Your task to perform on an android device: Set the phone to "Do not disturb". Image 0: 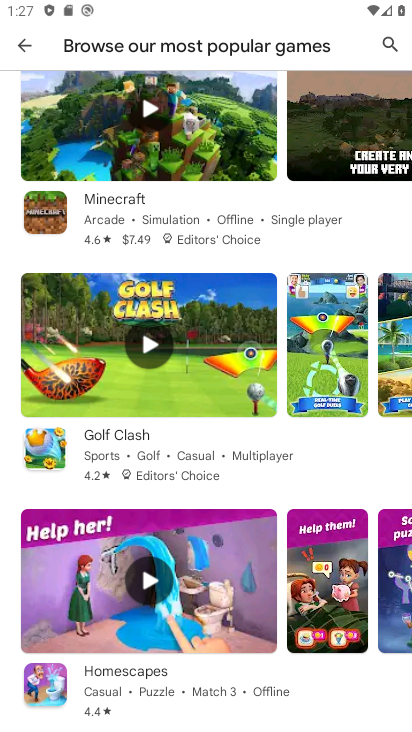
Step 0: press home button
Your task to perform on an android device: Set the phone to "Do not disturb". Image 1: 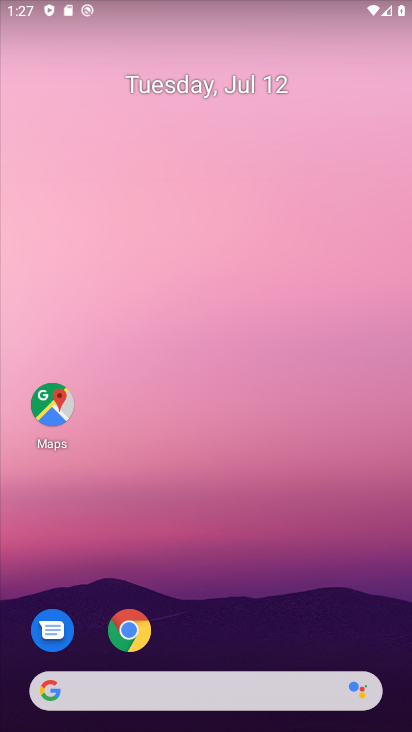
Step 1: drag from (315, 628) to (285, 238)
Your task to perform on an android device: Set the phone to "Do not disturb". Image 2: 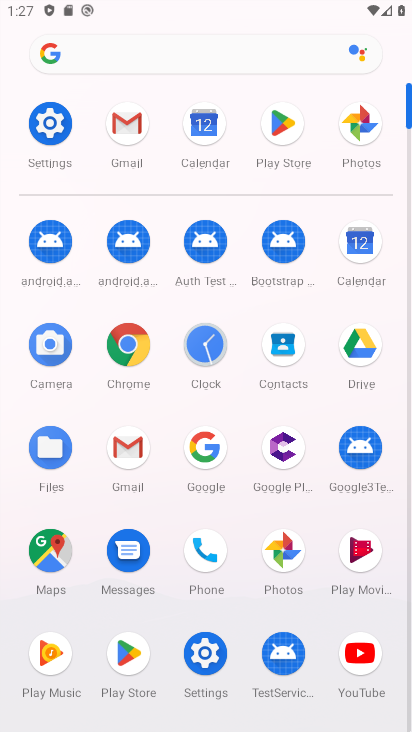
Step 2: click (203, 650)
Your task to perform on an android device: Set the phone to "Do not disturb". Image 3: 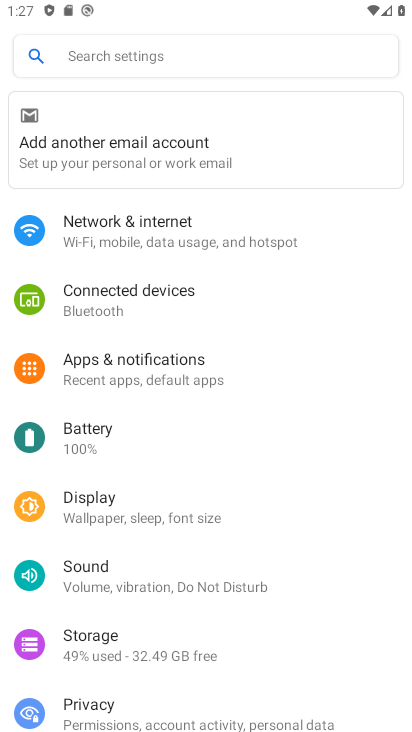
Step 3: click (117, 585)
Your task to perform on an android device: Set the phone to "Do not disturb". Image 4: 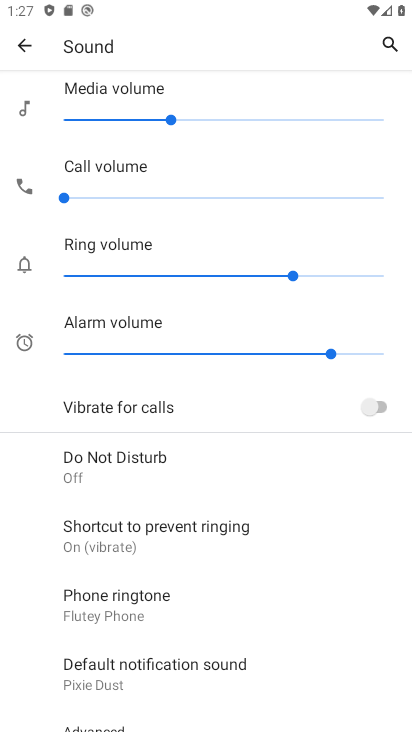
Step 4: click (91, 457)
Your task to perform on an android device: Set the phone to "Do not disturb". Image 5: 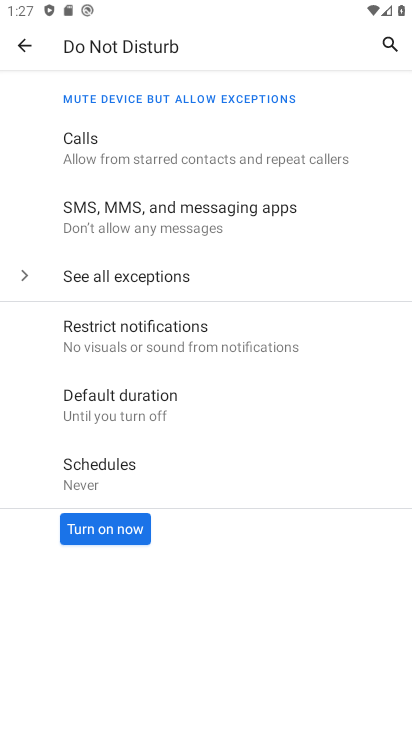
Step 5: click (93, 535)
Your task to perform on an android device: Set the phone to "Do not disturb". Image 6: 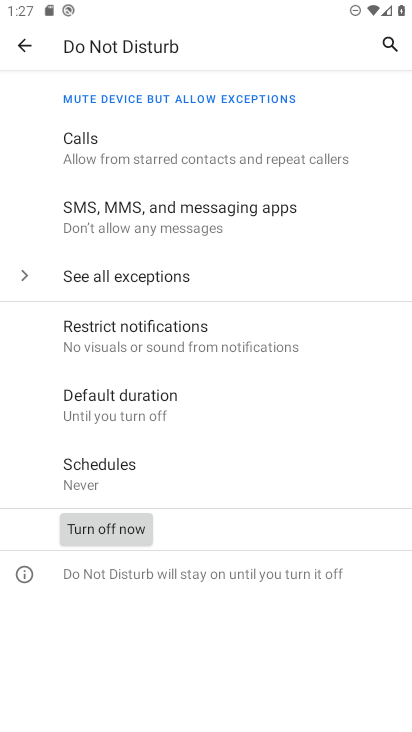
Step 6: task complete